Your task to perform on an android device: Go to location settings Image 0: 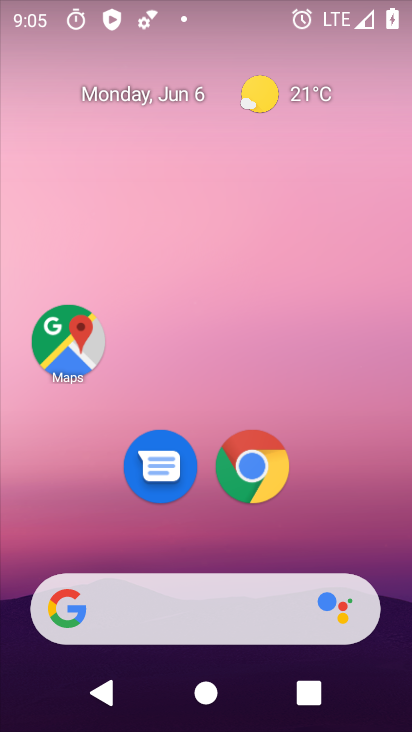
Step 0: drag from (333, 90) to (279, 187)
Your task to perform on an android device: Go to location settings Image 1: 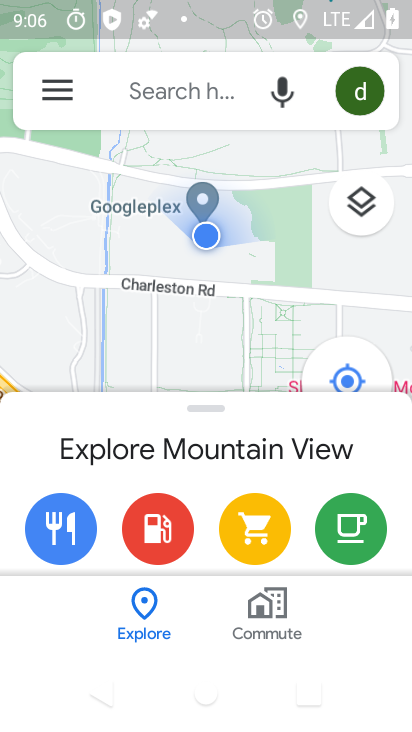
Step 1: drag from (165, 496) to (239, 231)
Your task to perform on an android device: Go to location settings Image 2: 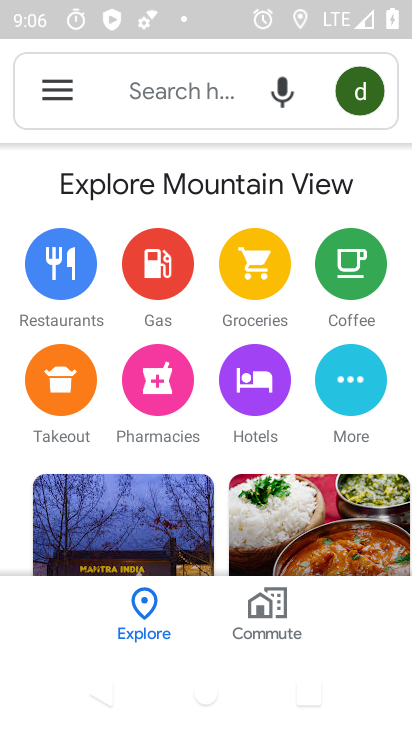
Step 2: click (50, 109)
Your task to perform on an android device: Go to location settings Image 3: 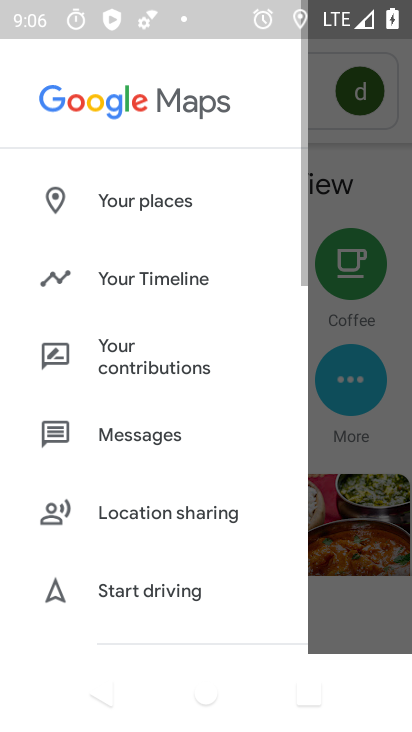
Step 3: drag from (136, 517) to (200, 111)
Your task to perform on an android device: Go to location settings Image 4: 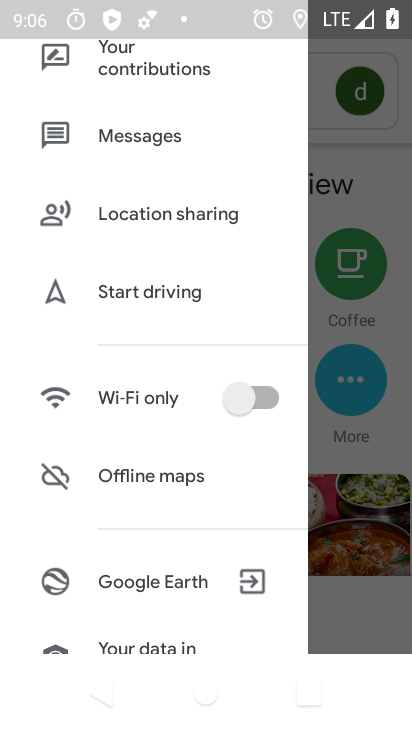
Step 4: drag from (140, 523) to (185, 133)
Your task to perform on an android device: Go to location settings Image 5: 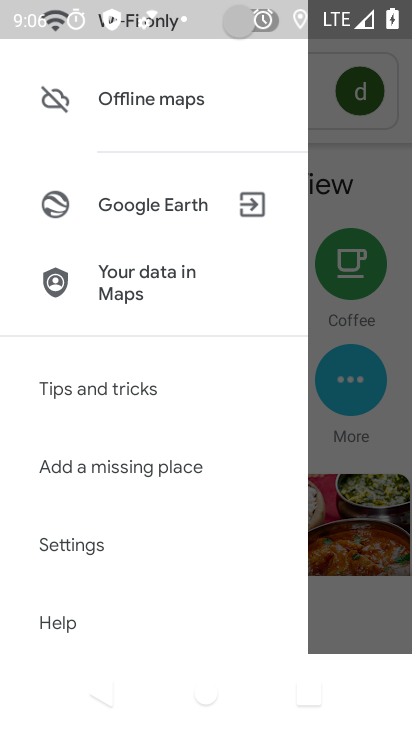
Step 5: click (109, 547)
Your task to perform on an android device: Go to location settings Image 6: 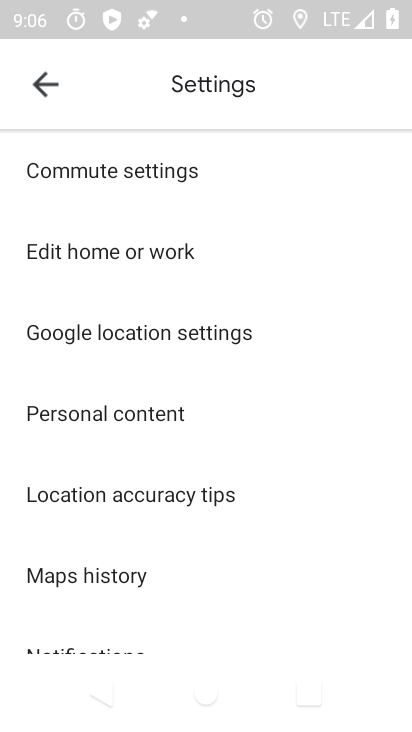
Step 6: click (146, 322)
Your task to perform on an android device: Go to location settings Image 7: 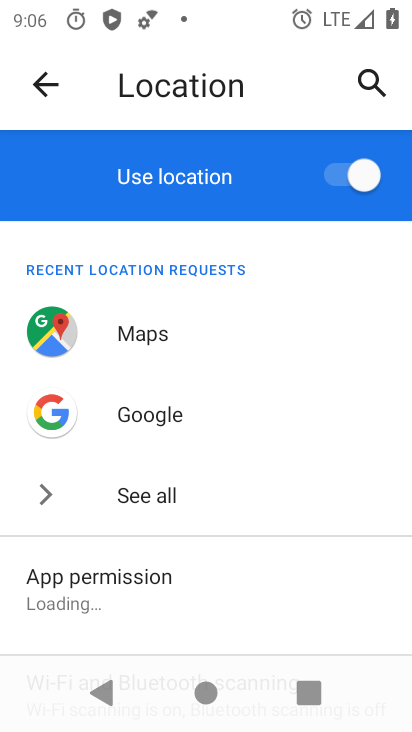
Step 7: drag from (160, 585) to (255, 203)
Your task to perform on an android device: Go to location settings Image 8: 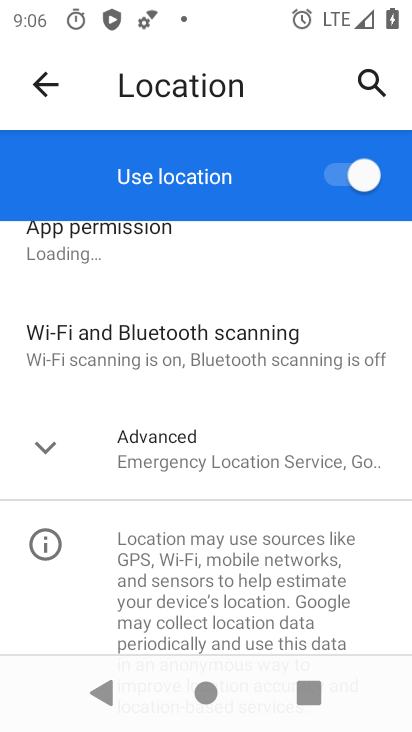
Step 8: click (110, 437)
Your task to perform on an android device: Go to location settings Image 9: 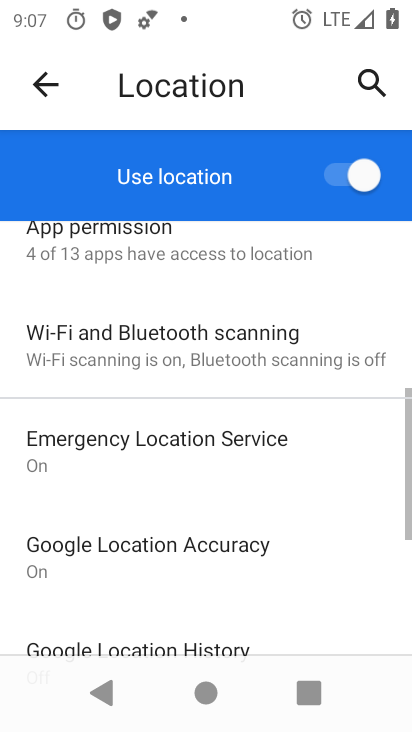
Step 9: task complete